Your task to perform on an android device: Open wifi settings Image 0: 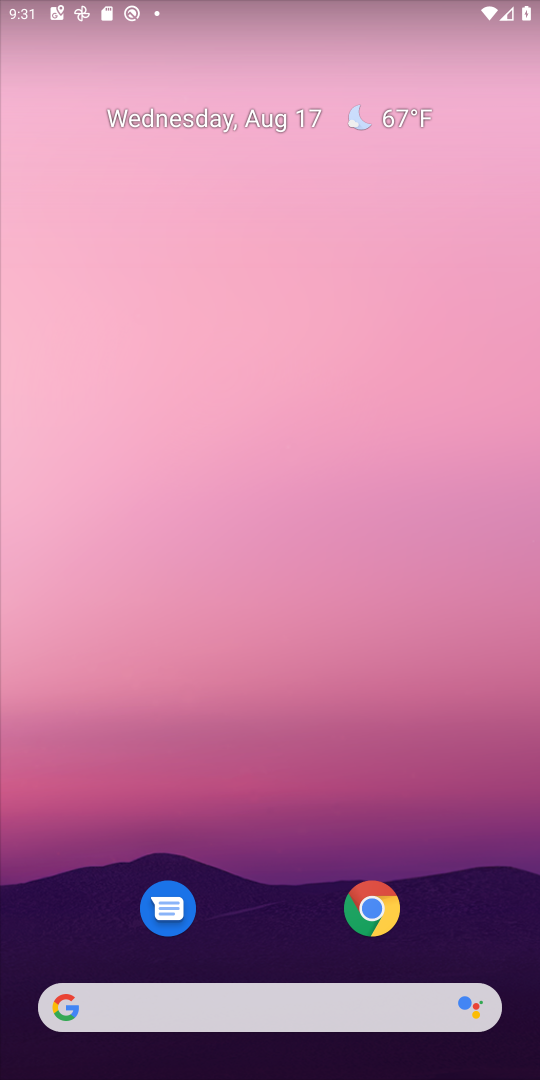
Step 0: drag from (194, 13) to (168, 540)
Your task to perform on an android device: Open wifi settings Image 1: 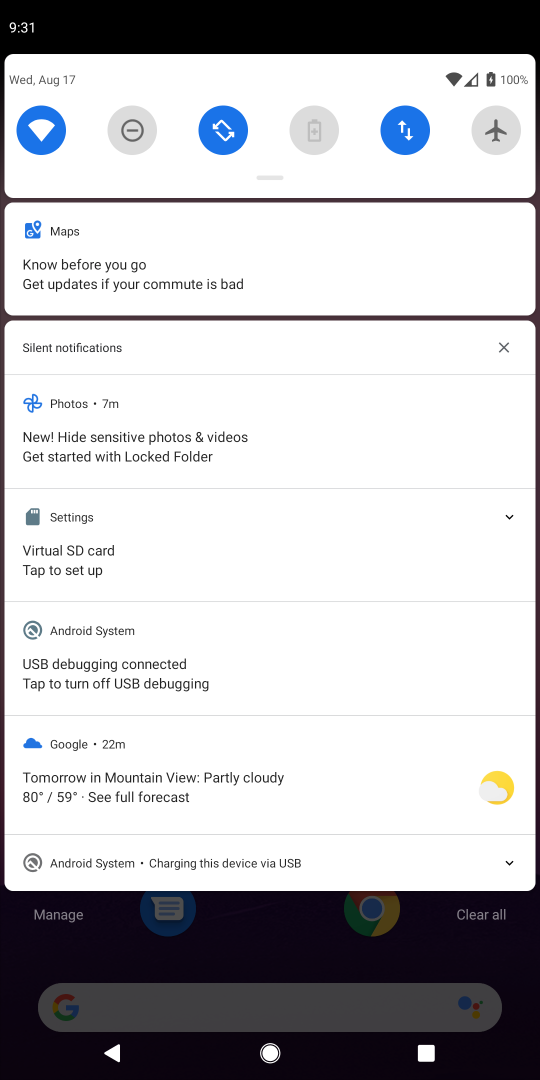
Step 1: click (37, 127)
Your task to perform on an android device: Open wifi settings Image 2: 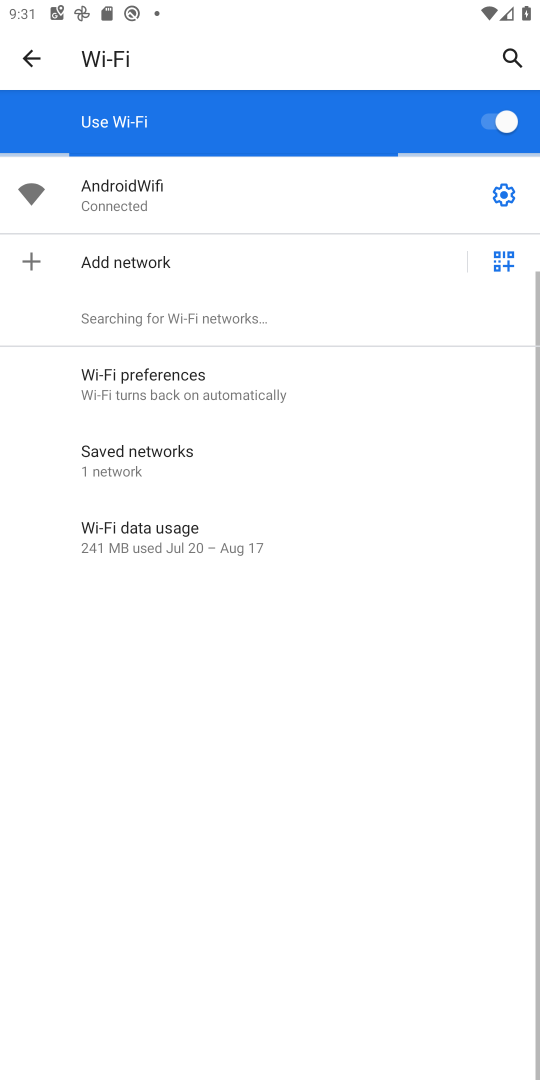
Step 2: task complete